Your task to perform on an android device: Search for vegetarian restaurants on Maps Image 0: 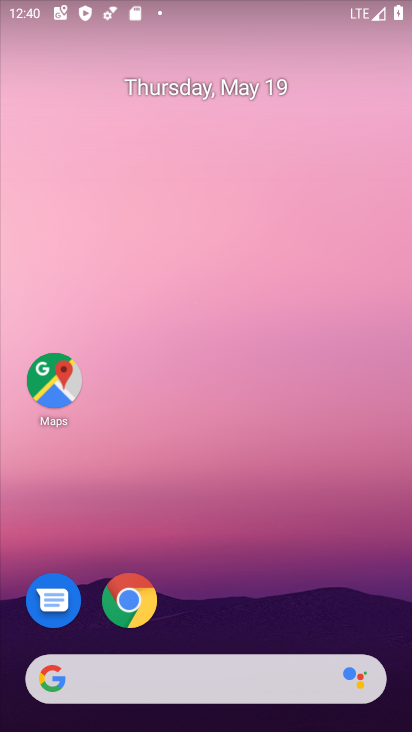
Step 0: click (41, 371)
Your task to perform on an android device: Search for vegetarian restaurants on Maps Image 1: 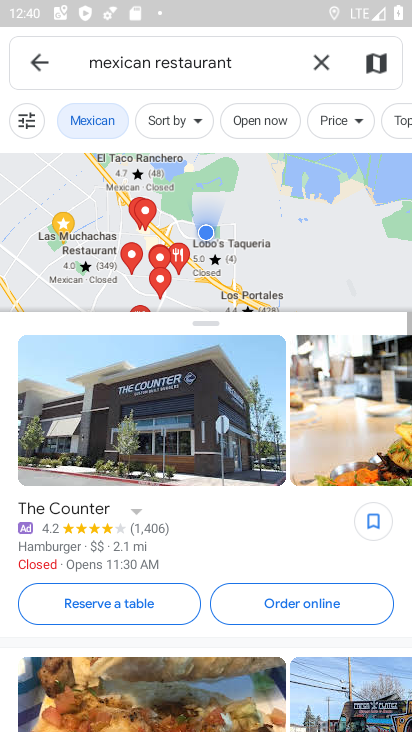
Step 1: click (316, 59)
Your task to perform on an android device: Search for vegetarian restaurants on Maps Image 2: 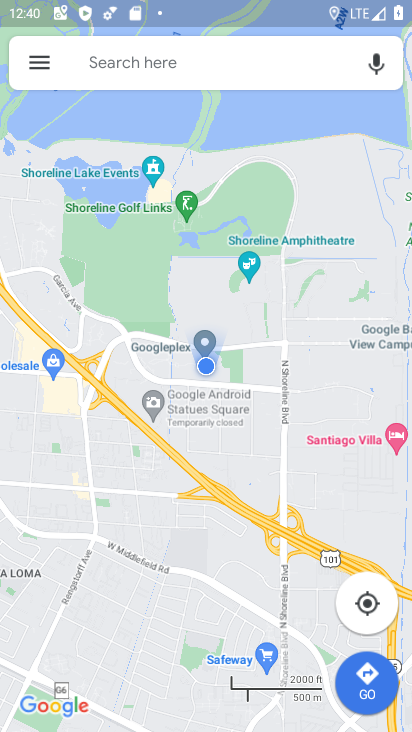
Step 2: click (160, 68)
Your task to perform on an android device: Search for vegetarian restaurants on Maps Image 3: 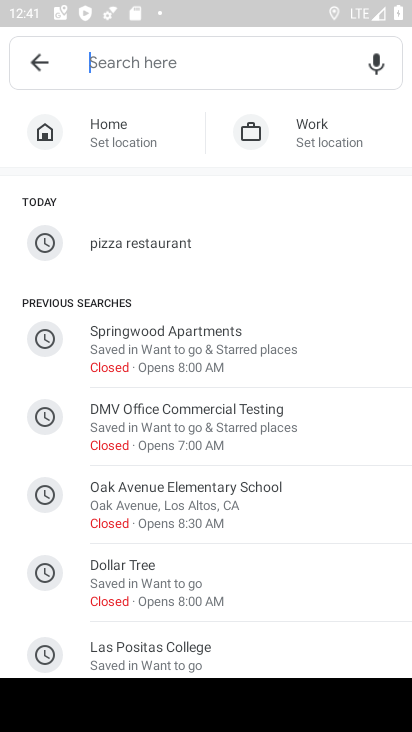
Step 3: type "vegetarian restaurants"
Your task to perform on an android device: Search for vegetarian restaurants on Maps Image 4: 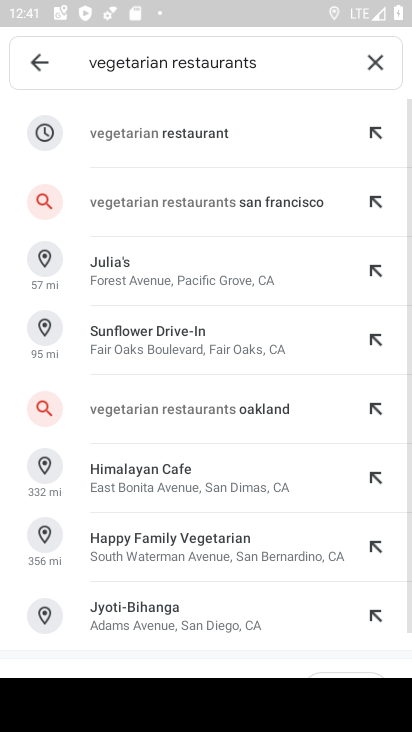
Step 4: click (184, 127)
Your task to perform on an android device: Search for vegetarian restaurants on Maps Image 5: 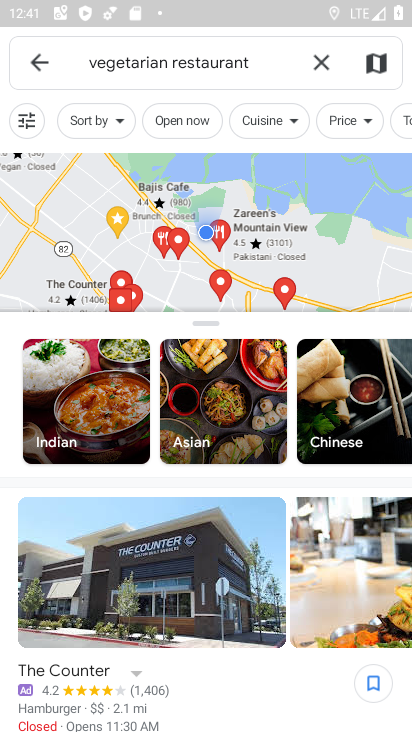
Step 5: task complete